Your task to perform on an android device: Show me popular videos on Youtube Image 0: 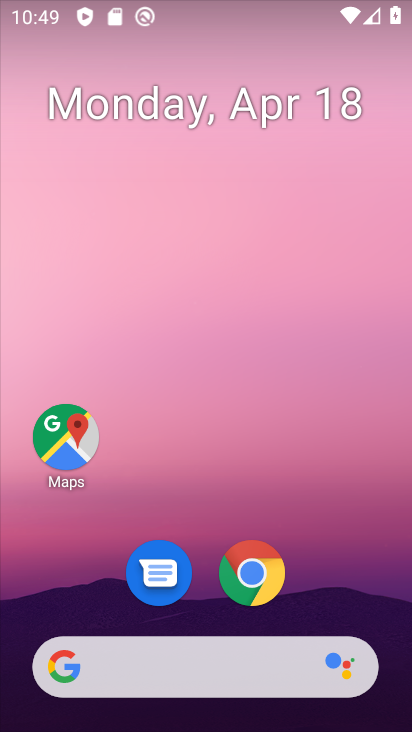
Step 0: drag from (331, 588) to (389, 122)
Your task to perform on an android device: Show me popular videos on Youtube Image 1: 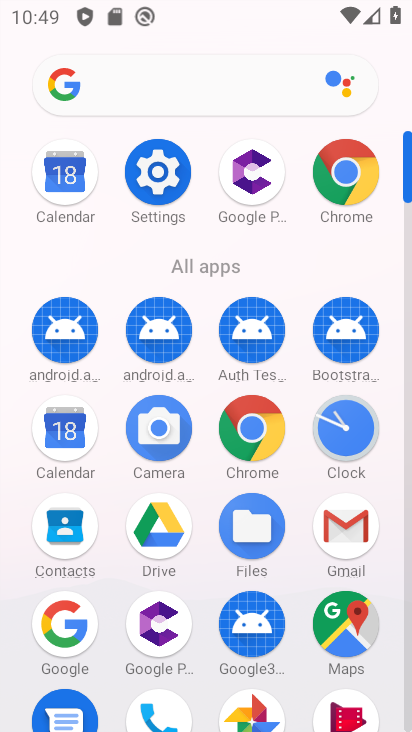
Step 1: drag from (299, 456) to (324, 102)
Your task to perform on an android device: Show me popular videos on Youtube Image 2: 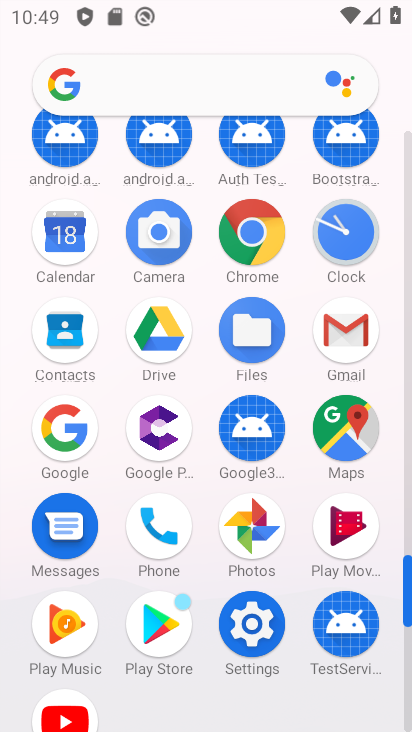
Step 2: click (68, 715)
Your task to perform on an android device: Show me popular videos on Youtube Image 3: 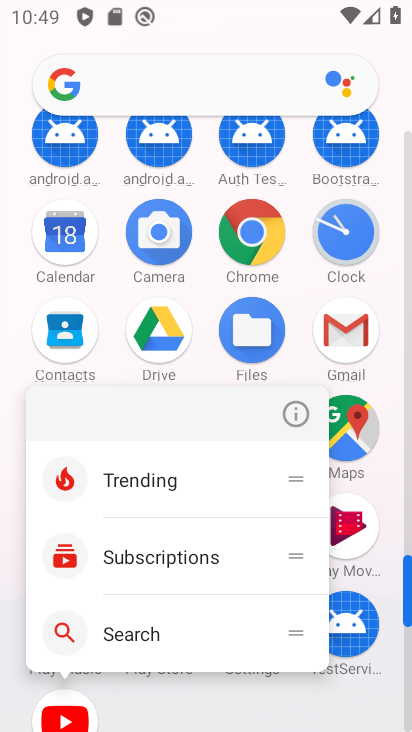
Step 3: click (67, 725)
Your task to perform on an android device: Show me popular videos on Youtube Image 4: 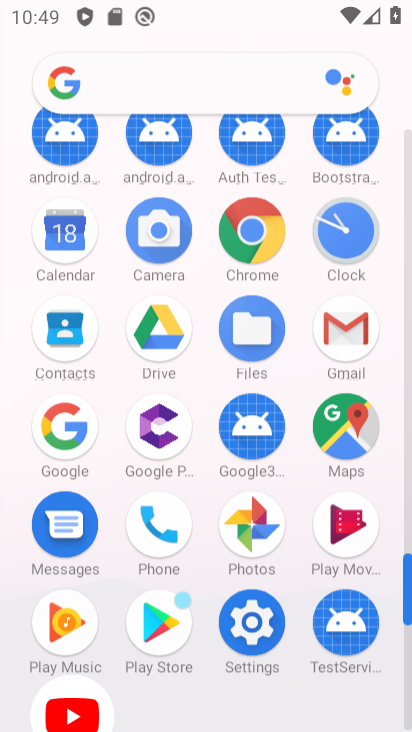
Step 4: click (67, 719)
Your task to perform on an android device: Show me popular videos on Youtube Image 5: 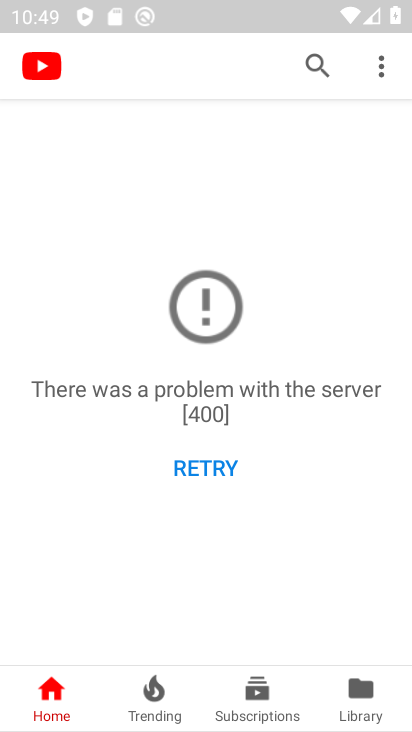
Step 5: click (353, 671)
Your task to perform on an android device: Show me popular videos on Youtube Image 6: 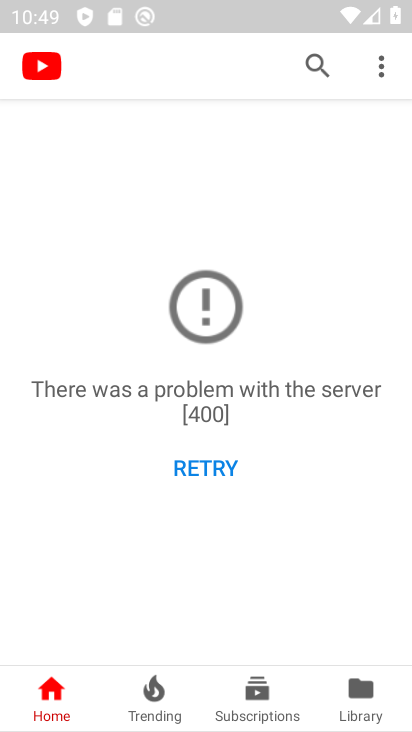
Step 6: click (167, 684)
Your task to perform on an android device: Show me popular videos on Youtube Image 7: 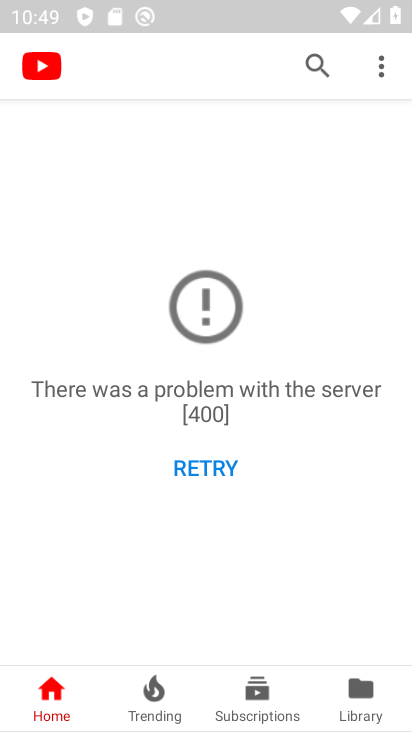
Step 7: task complete